Your task to perform on an android device: Go to location settings Image 0: 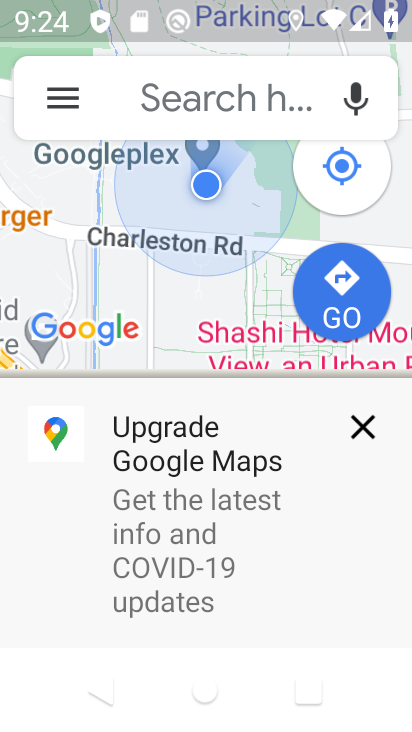
Step 0: press back button
Your task to perform on an android device: Go to location settings Image 1: 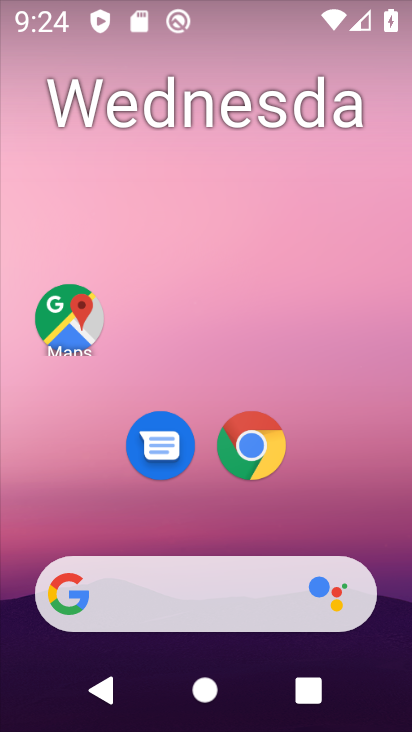
Step 1: drag from (201, 545) to (288, 61)
Your task to perform on an android device: Go to location settings Image 2: 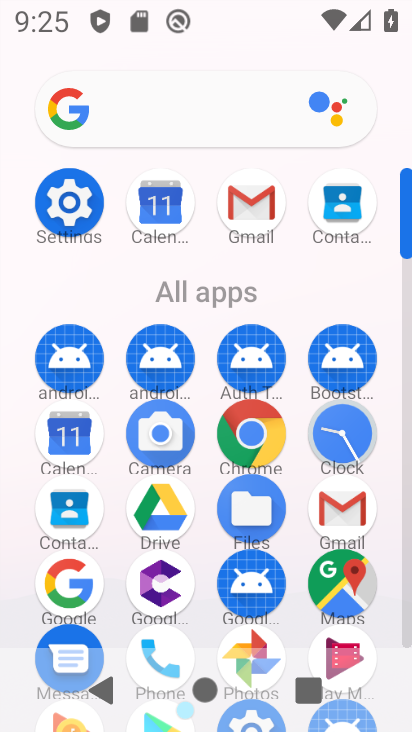
Step 2: click (55, 196)
Your task to perform on an android device: Go to location settings Image 3: 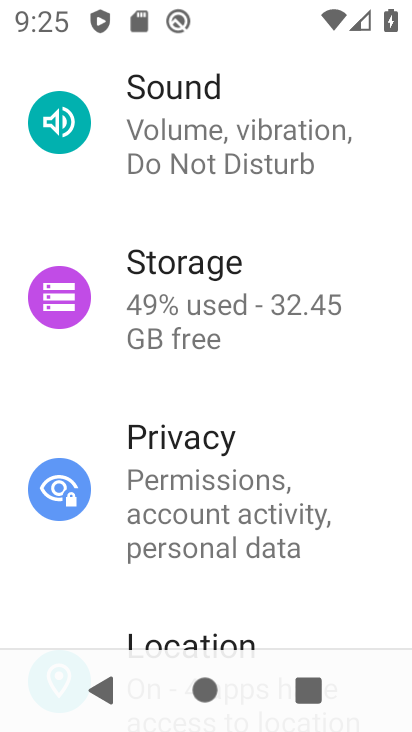
Step 3: drag from (224, 577) to (295, 154)
Your task to perform on an android device: Go to location settings Image 4: 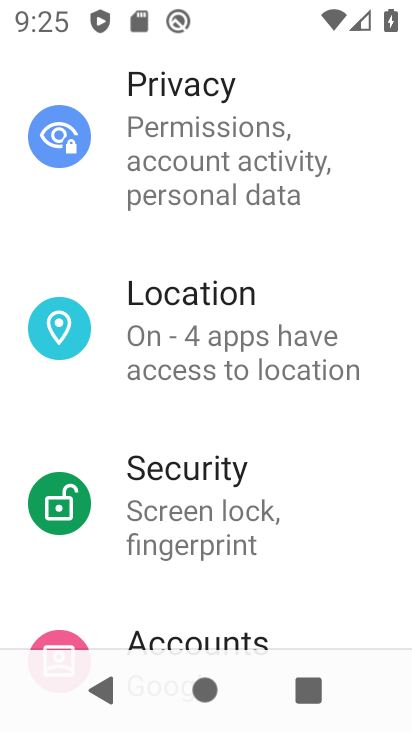
Step 4: click (192, 343)
Your task to perform on an android device: Go to location settings Image 5: 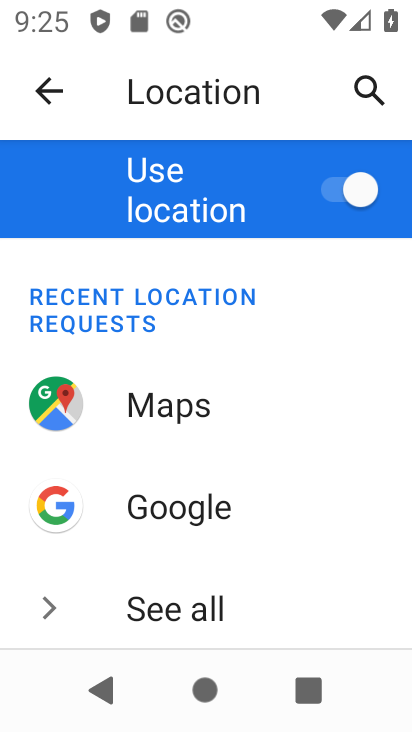
Step 5: task complete